Your task to perform on an android device: Open ESPN.com Image 0: 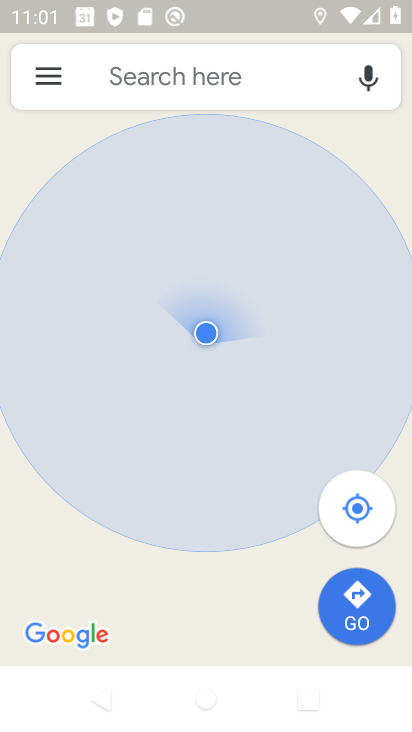
Step 0: press home button
Your task to perform on an android device: Open ESPN.com Image 1: 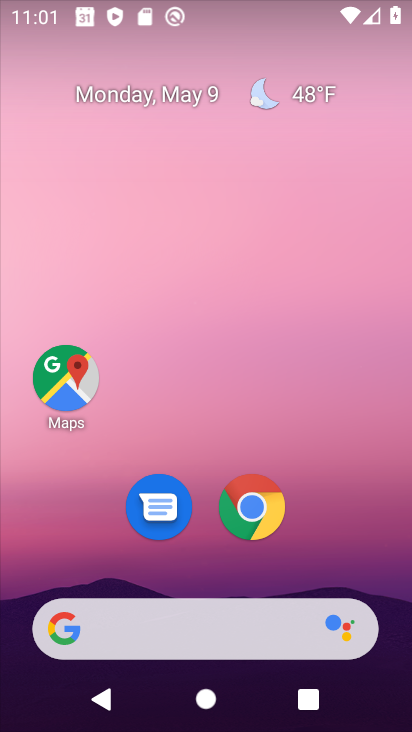
Step 1: click (252, 517)
Your task to perform on an android device: Open ESPN.com Image 2: 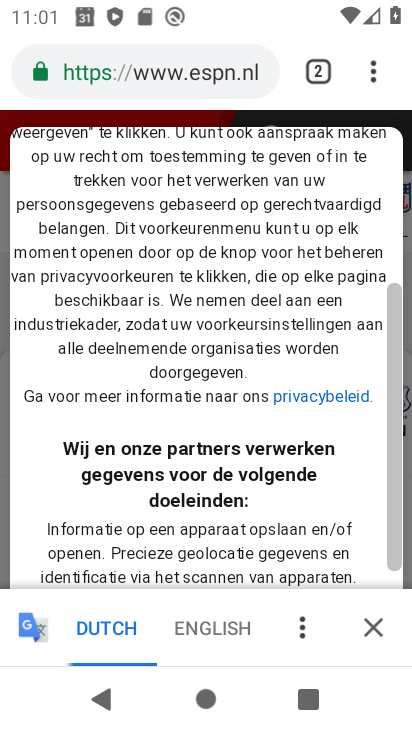
Step 2: task complete